Your task to perform on an android device: choose inbox layout in the gmail app Image 0: 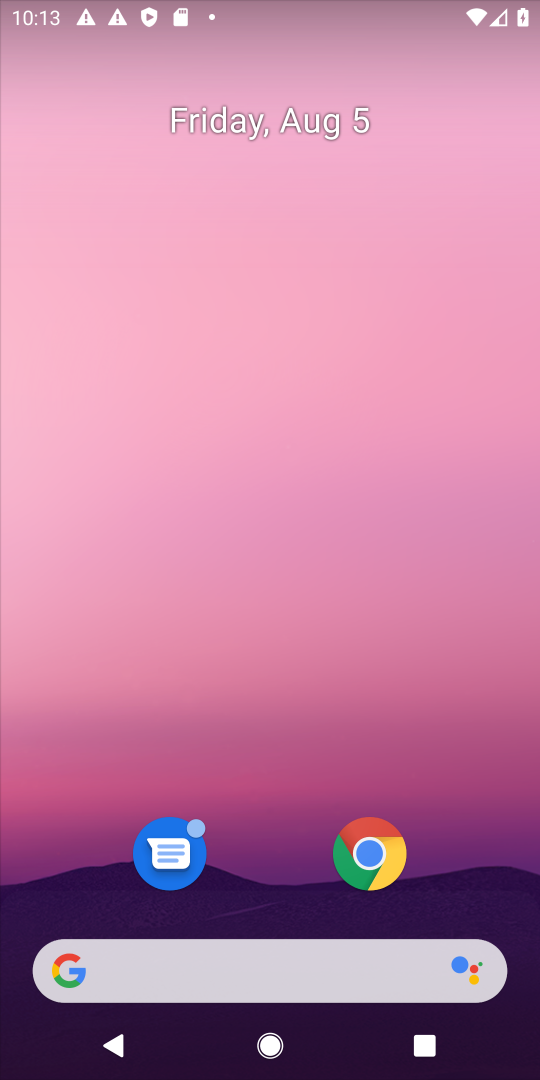
Step 0: drag from (266, 857) to (196, 121)
Your task to perform on an android device: choose inbox layout in the gmail app Image 1: 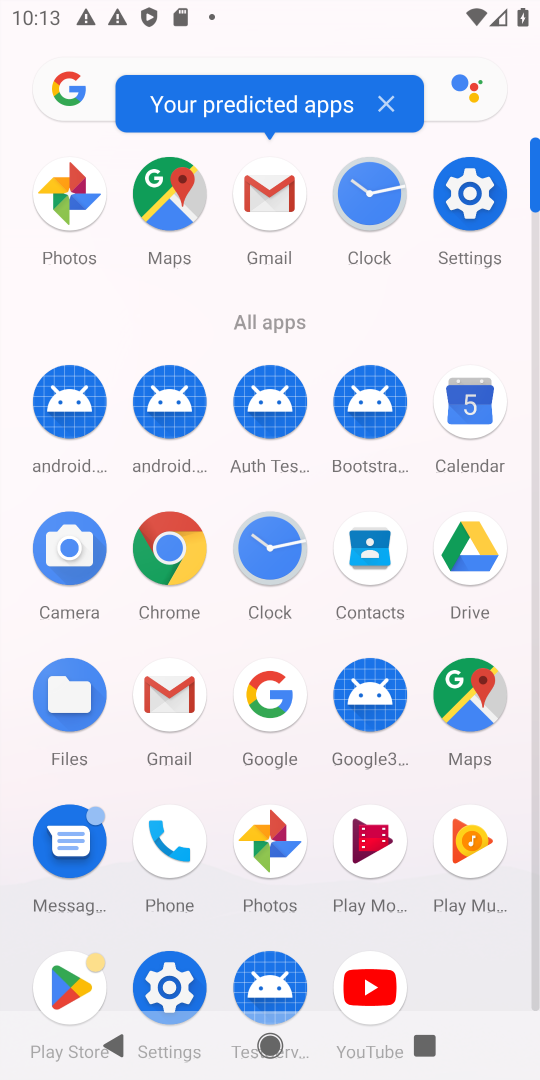
Step 1: click (273, 193)
Your task to perform on an android device: choose inbox layout in the gmail app Image 2: 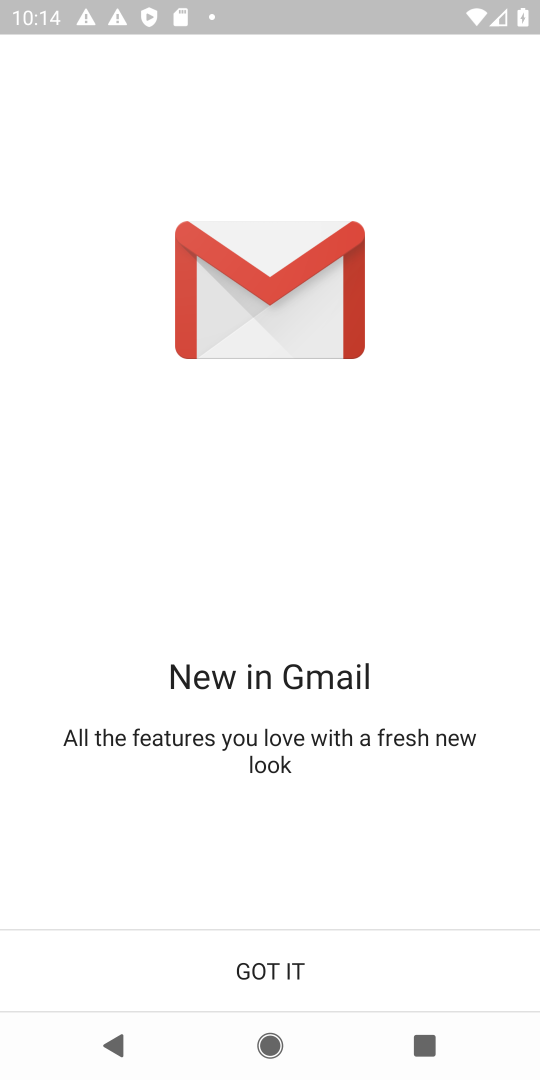
Step 2: click (304, 956)
Your task to perform on an android device: choose inbox layout in the gmail app Image 3: 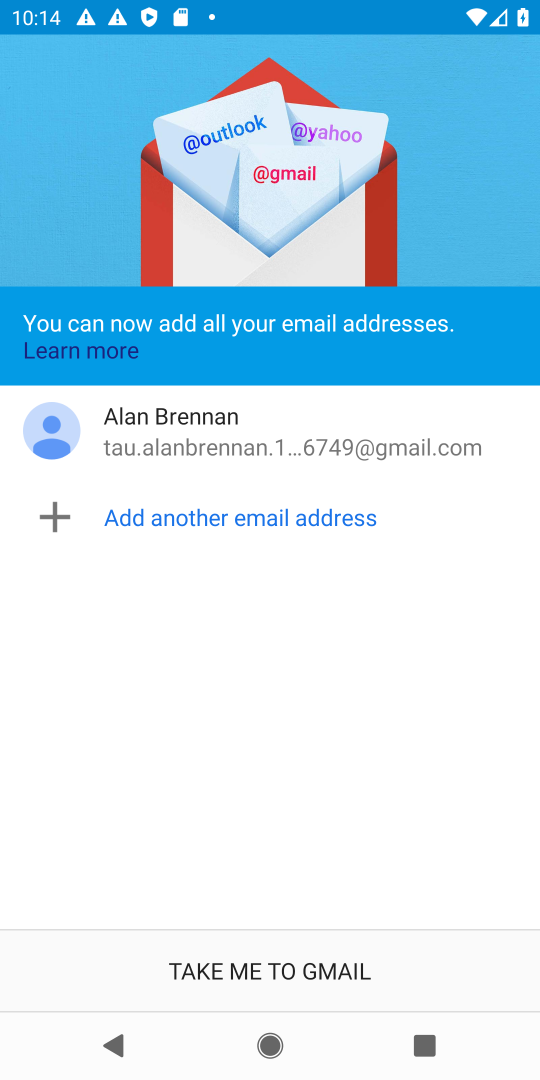
Step 3: click (264, 959)
Your task to perform on an android device: choose inbox layout in the gmail app Image 4: 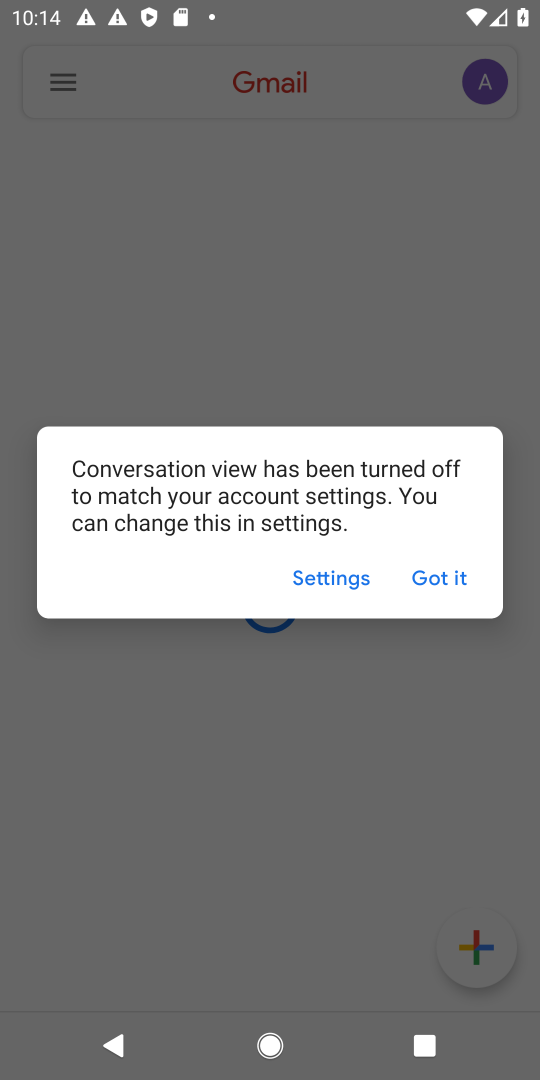
Step 4: click (456, 571)
Your task to perform on an android device: choose inbox layout in the gmail app Image 5: 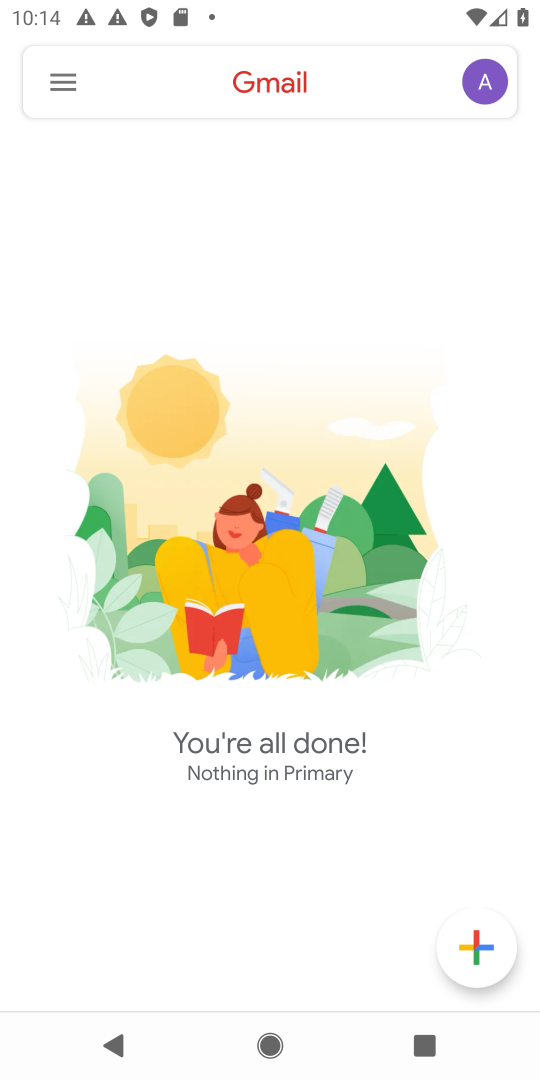
Step 5: click (60, 89)
Your task to perform on an android device: choose inbox layout in the gmail app Image 6: 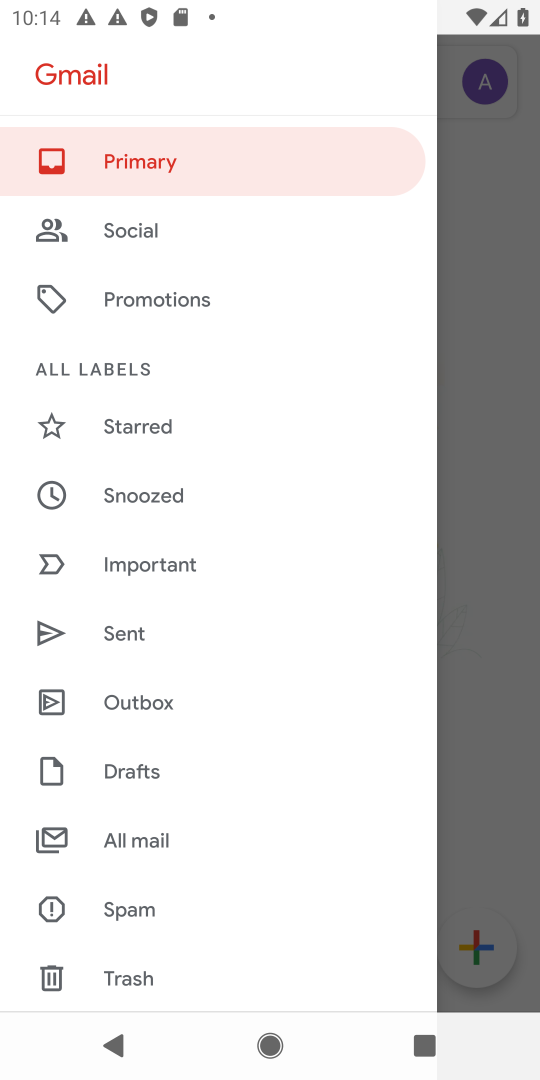
Step 6: drag from (152, 896) to (63, 493)
Your task to perform on an android device: choose inbox layout in the gmail app Image 7: 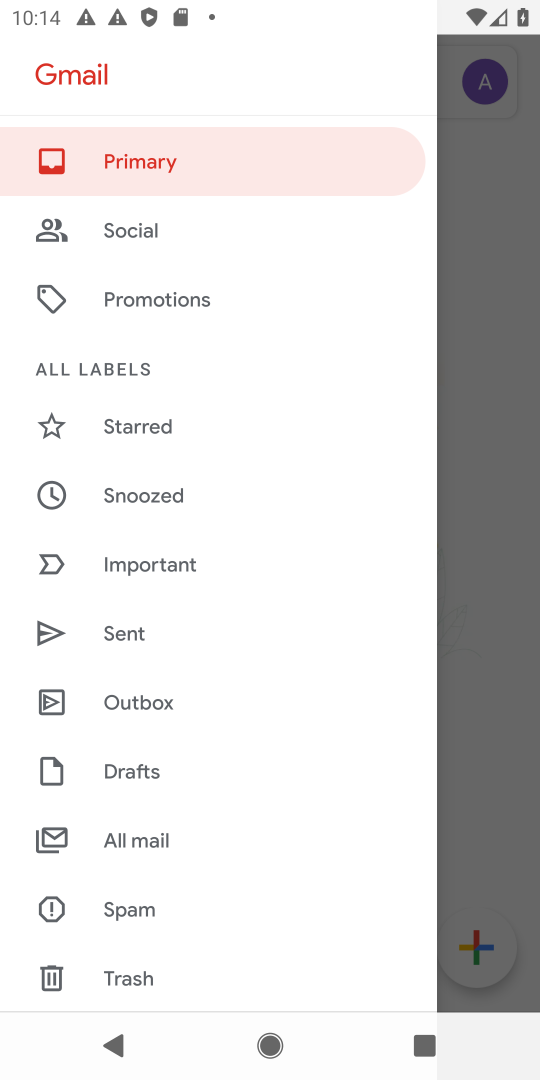
Step 7: drag from (172, 872) to (154, 1)
Your task to perform on an android device: choose inbox layout in the gmail app Image 8: 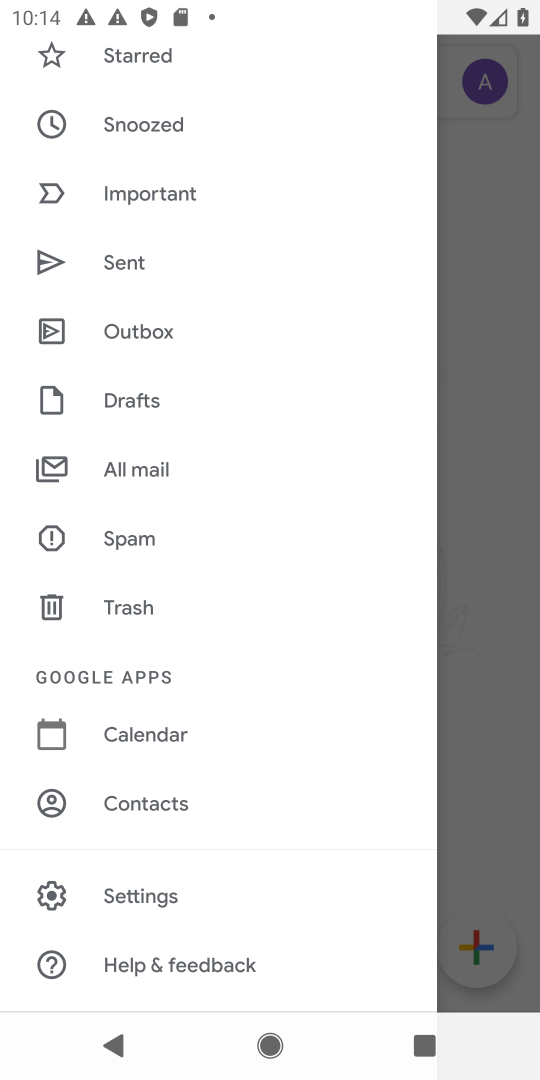
Step 8: click (143, 879)
Your task to perform on an android device: choose inbox layout in the gmail app Image 9: 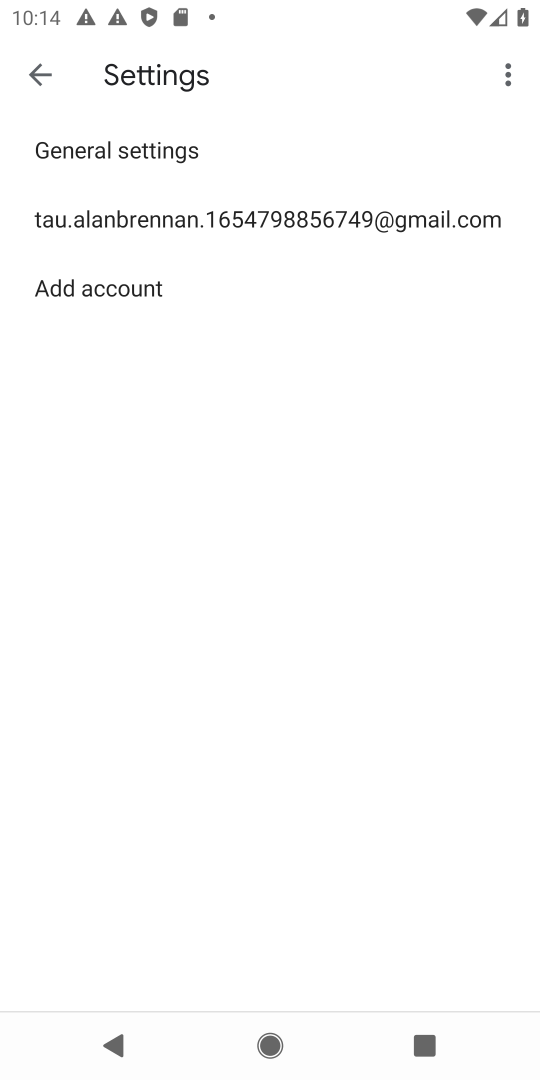
Step 9: click (358, 226)
Your task to perform on an android device: choose inbox layout in the gmail app Image 10: 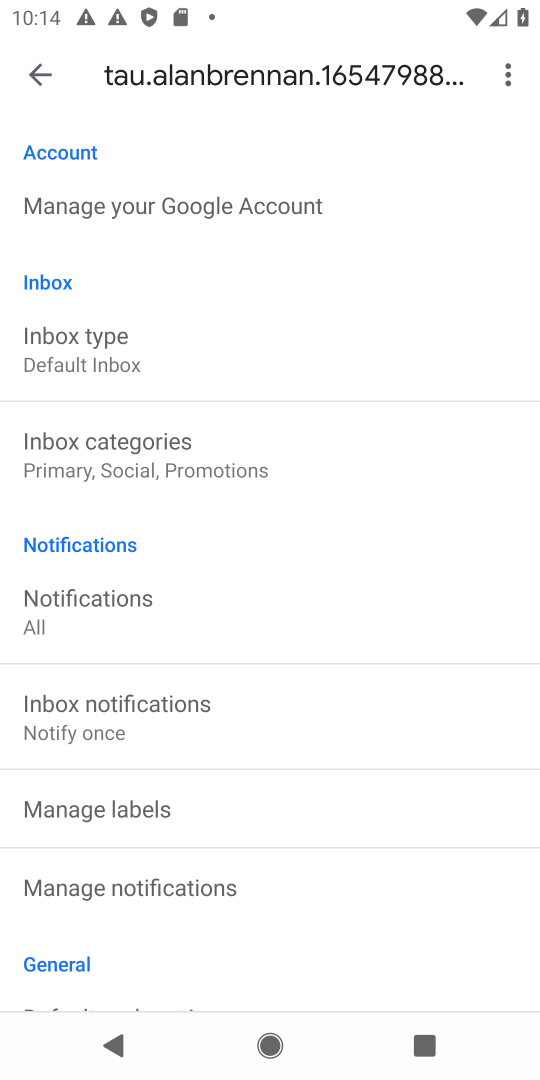
Step 10: click (54, 373)
Your task to perform on an android device: choose inbox layout in the gmail app Image 11: 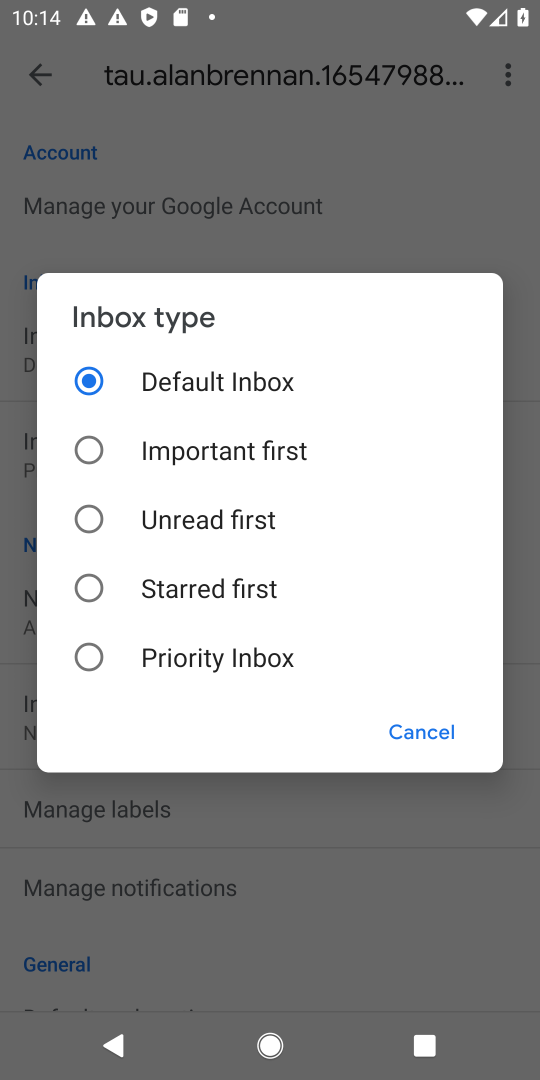
Step 11: click (184, 464)
Your task to perform on an android device: choose inbox layout in the gmail app Image 12: 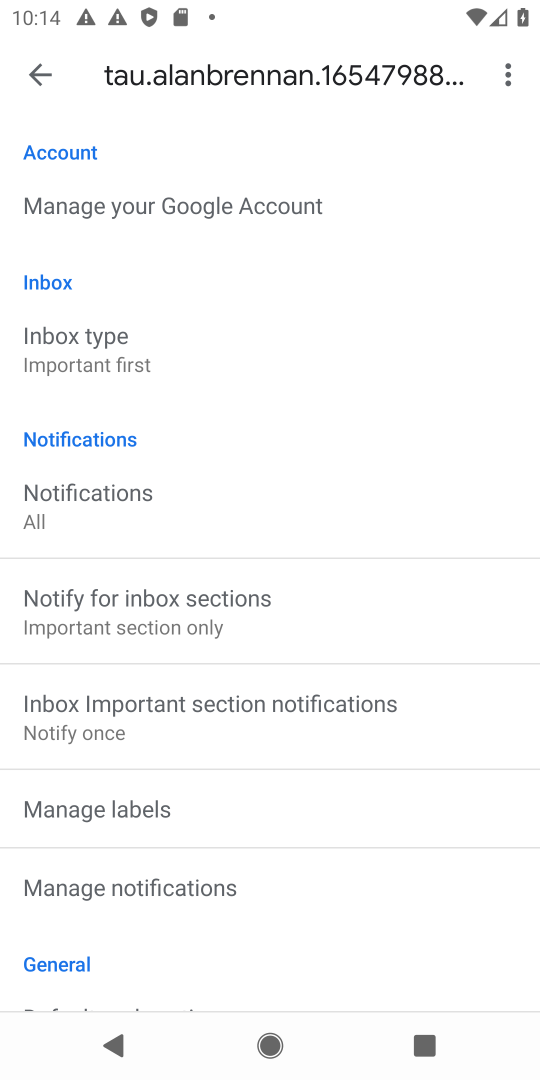
Step 12: task complete